Your task to perform on an android device: change keyboard looks Image 0: 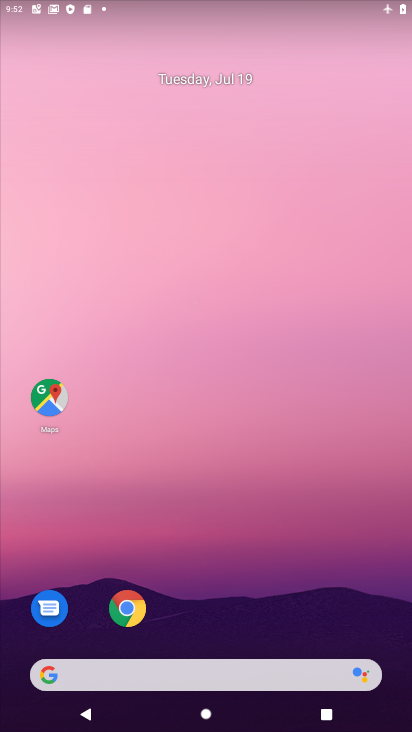
Step 0: drag from (391, 585) to (360, 121)
Your task to perform on an android device: change keyboard looks Image 1: 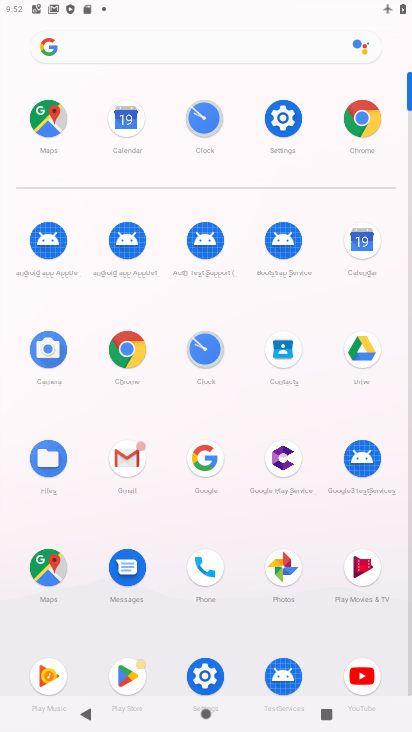
Step 1: click (290, 114)
Your task to perform on an android device: change keyboard looks Image 2: 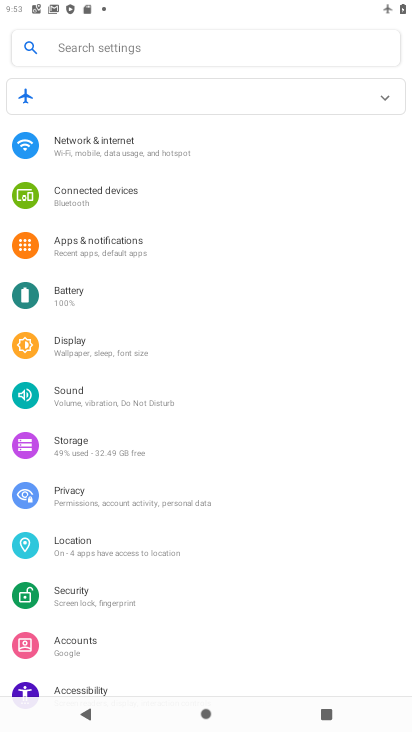
Step 2: drag from (184, 559) to (234, 198)
Your task to perform on an android device: change keyboard looks Image 3: 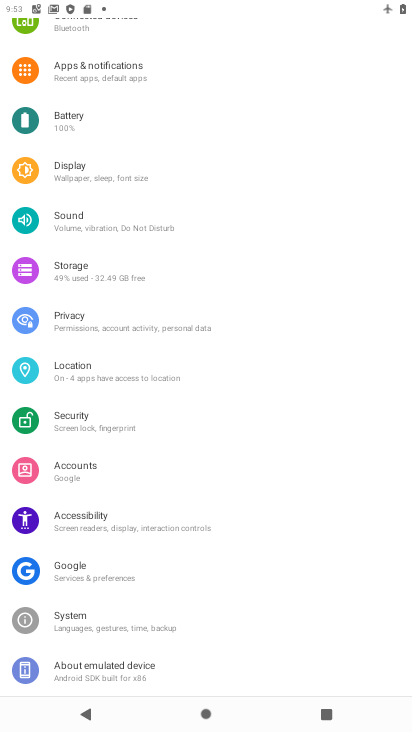
Step 3: click (68, 620)
Your task to perform on an android device: change keyboard looks Image 4: 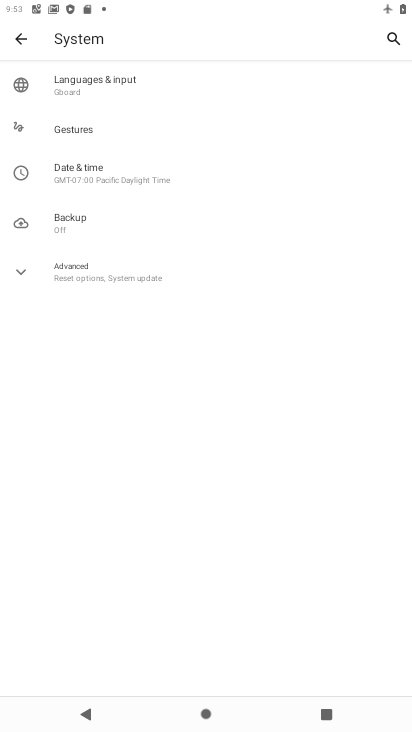
Step 4: click (86, 81)
Your task to perform on an android device: change keyboard looks Image 5: 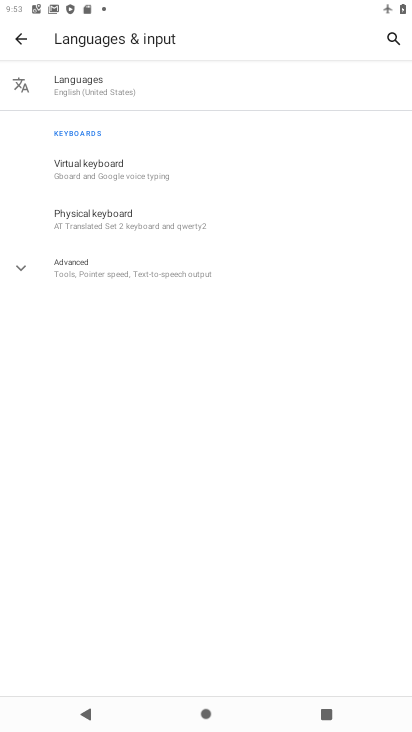
Step 5: click (110, 81)
Your task to perform on an android device: change keyboard looks Image 6: 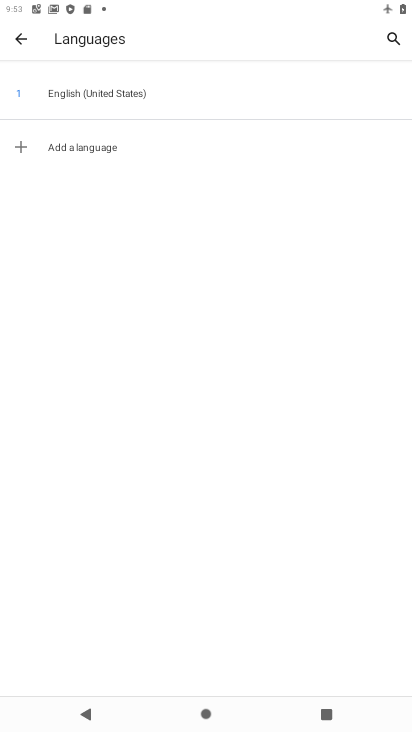
Step 6: click (28, 50)
Your task to perform on an android device: change keyboard looks Image 7: 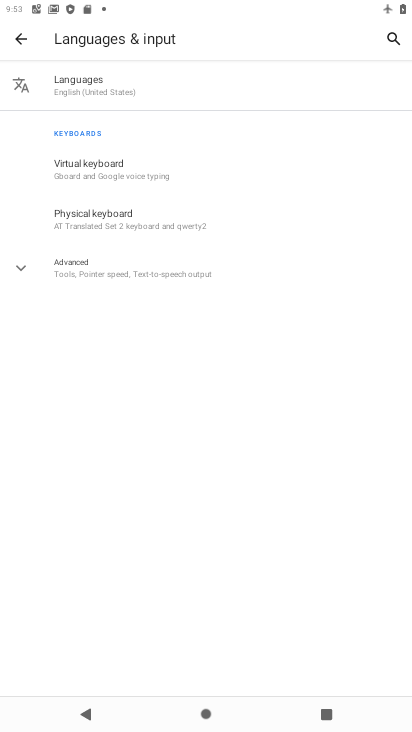
Step 7: click (103, 155)
Your task to perform on an android device: change keyboard looks Image 8: 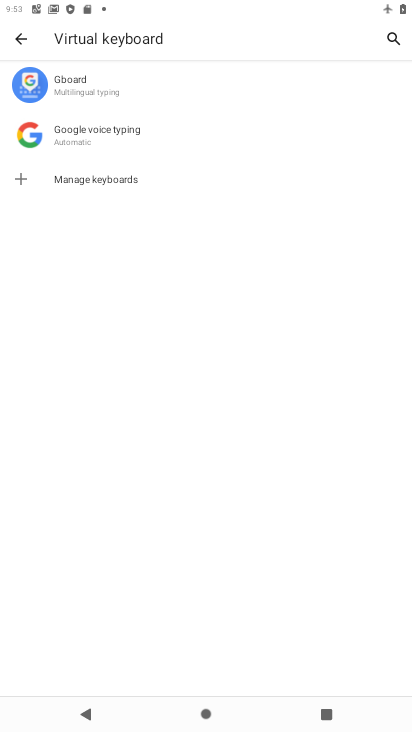
Step 8: click (96, 95)
Your task to perform on an android device: change keyboard looks Image 9: 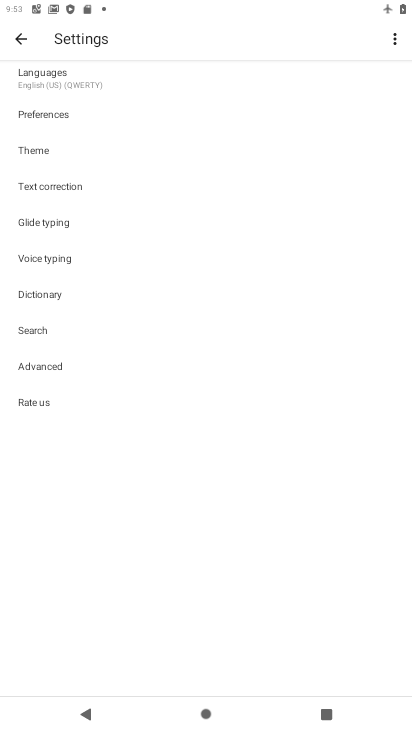
Step 9: click (45, 148)
Your task to perform on an android device: change keyboard looks Image 10: 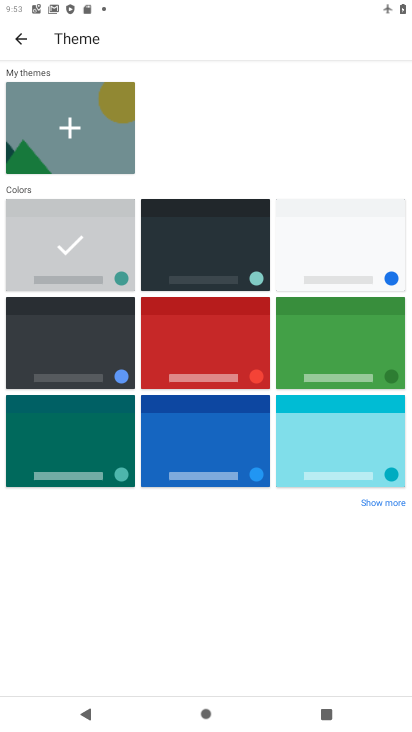
Step 10: click (339, 220)
Your task to perform on an android device: change keyboard looks Image 11: 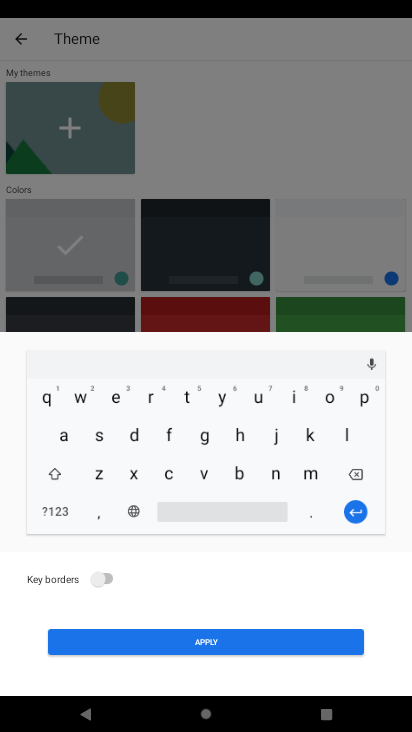
Step 11: click (281, 644)
Your task to perform on an android device: change keyboard looks Image 12: 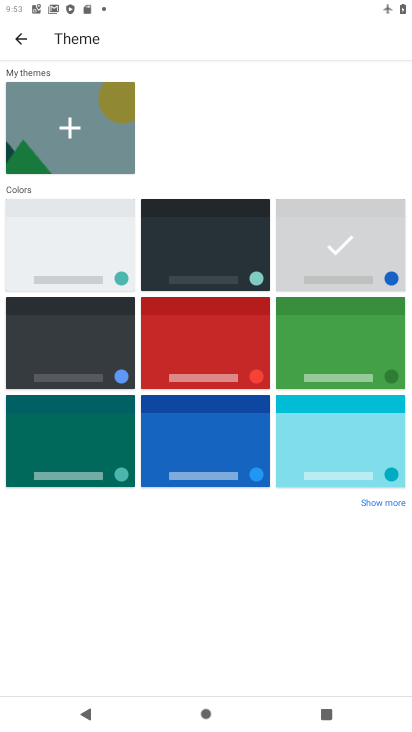
Step 12: task complete